Your task to perform on an android device: check out phone information Image 0: 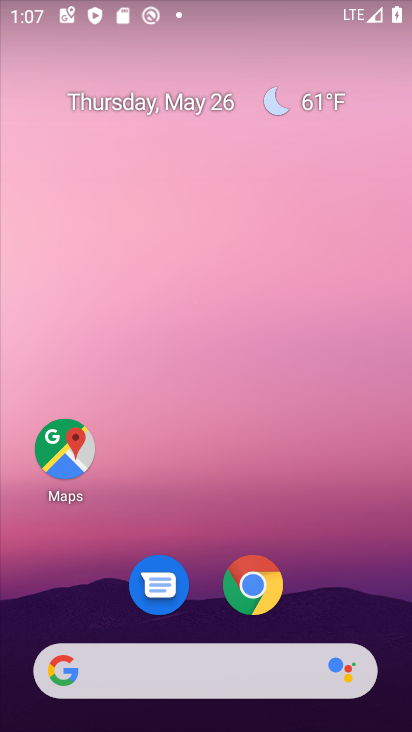
Step 0: drag from (200, 522) to (255, 62)
Your task to perform on an android device: check out phone information Image 1: 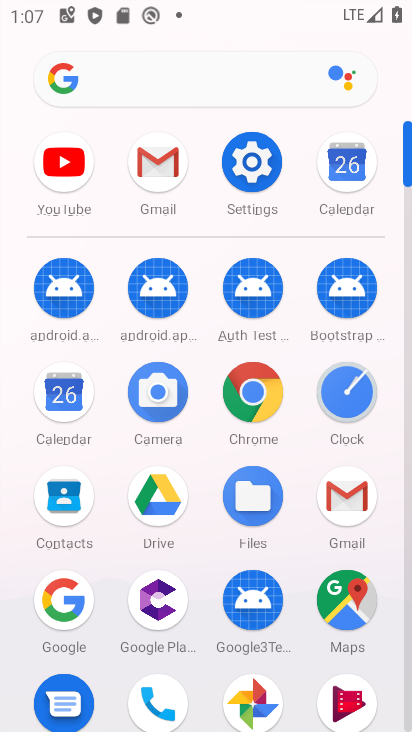
Step 1: drag from (108, 583) to (155, 340)
Your task to perform on an android device: check out phone information Image 2: 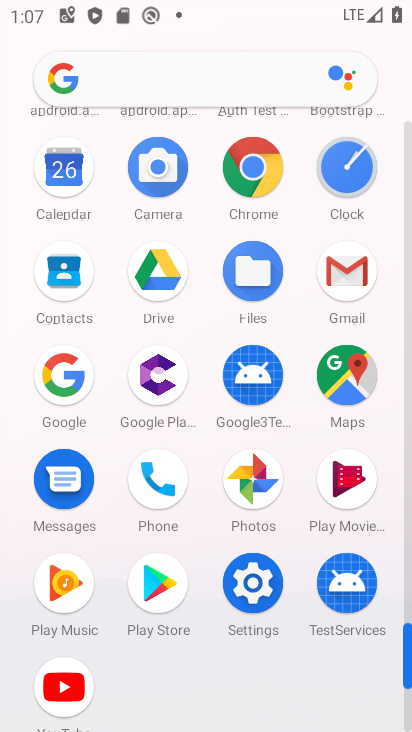
Step 2: click (155, 469)
Your task to perform on an android device: check out phone information Image 3: 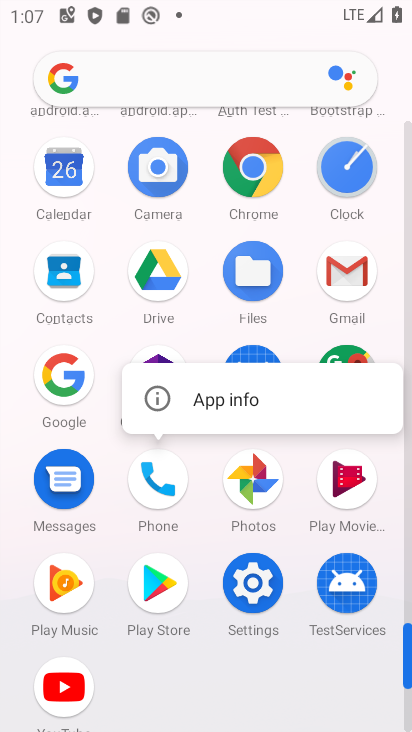
Step 3: click (155, 469)
Your task to perform on an android device: check out phone information Image 4: 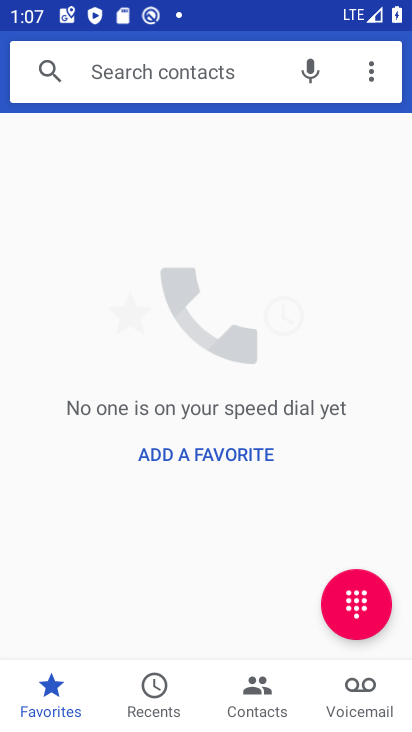
Step 4: click (368, 72)
Your task to perform on an android device: check out phone information Image 5: 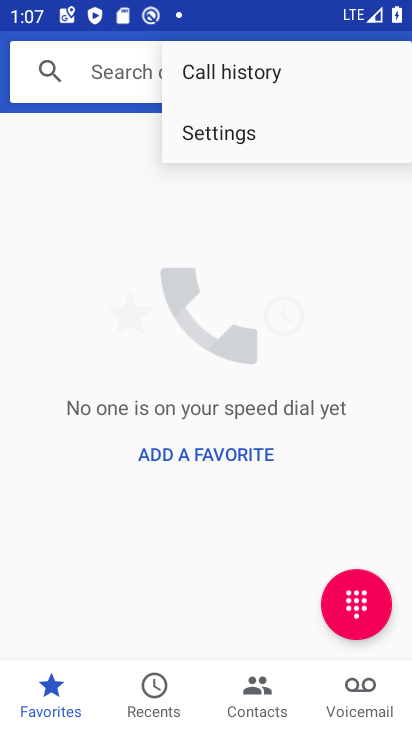
Step 5: click (302, 138)
Your task to perform on an android device: check out phone information Image 6: 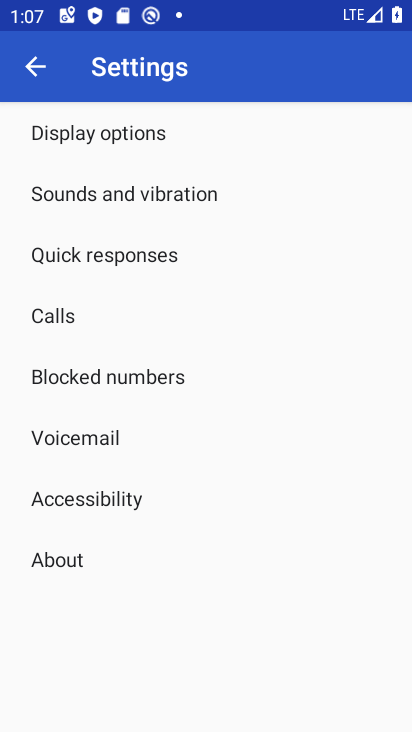
Step 6: click (60, 553)
Your task to perform on an android device: check out phone information Image 7: 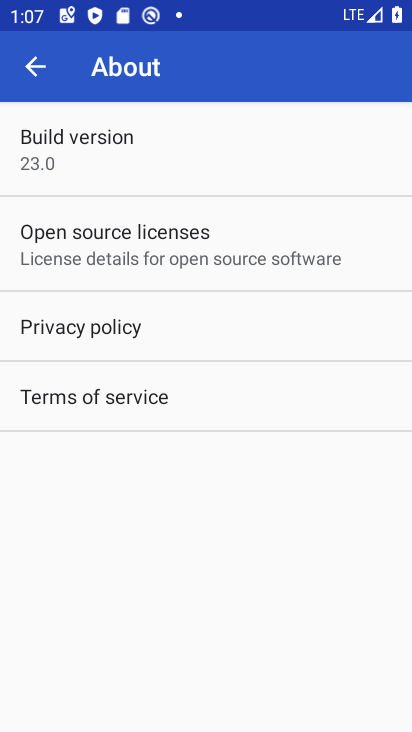
Step 7: task complete